Your task to perform on an android device: toggle pop-ups in chrome Image 0: 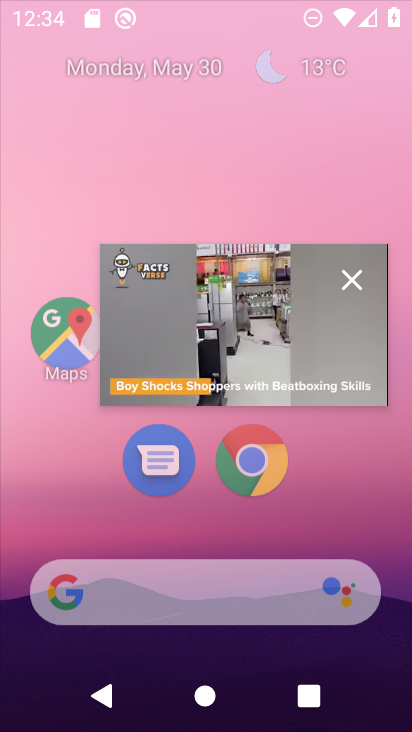
Step 0: click (290, 397)
Your task to perform on an android device: toggle pop-ups in chrome Image 1: 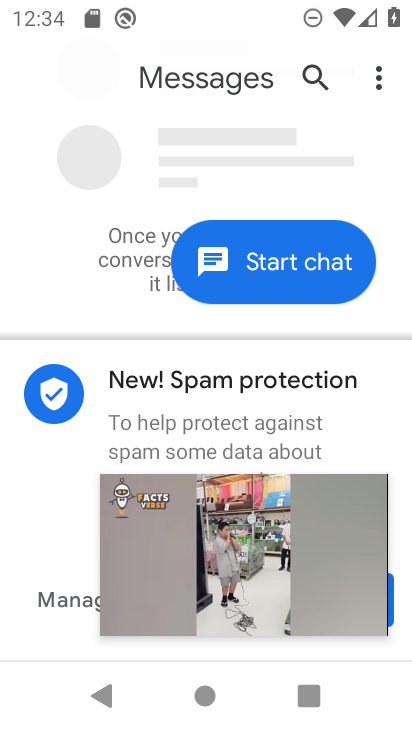
Step 1: press back button
Your task to perform on an android device: toggle pop-ups in chrome Image 2: 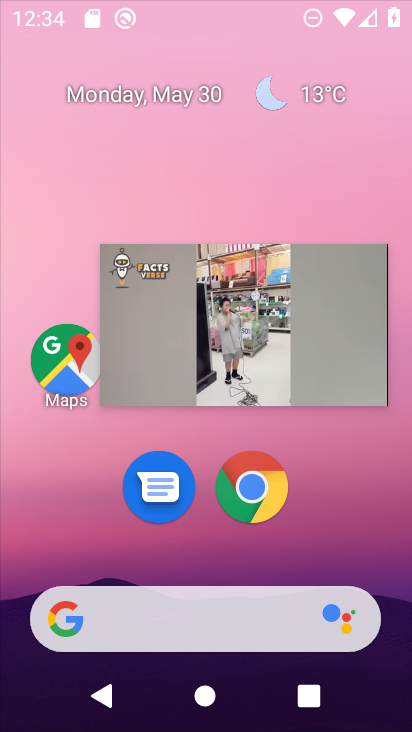
Step 2: press home button
Your task to perform on an android device: toggle pop-ups in chrome Image 3: 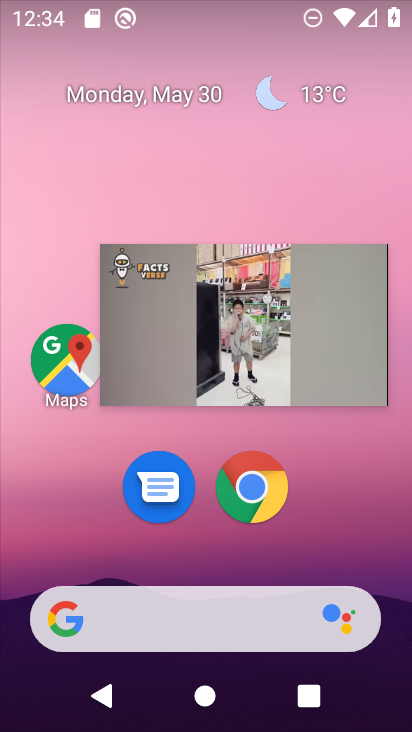
Step 3: click (342, 254)
Your task to perform on an android device: toggle pop-ups in chrome Image 4: 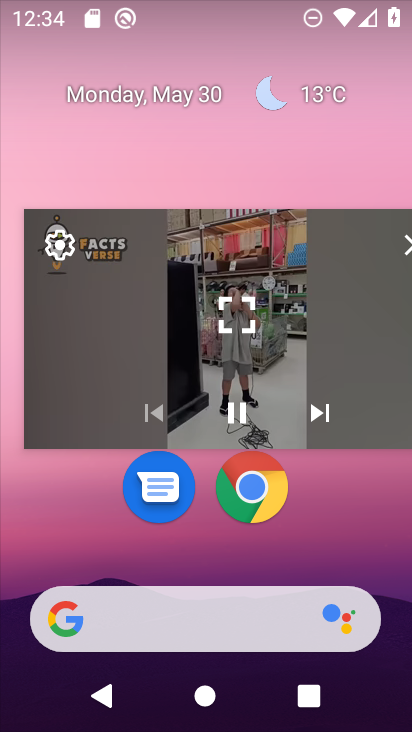
Step 4: click (403, 245)
Your task to perform on an android device: toggle pop-ups in chrome Image 5: 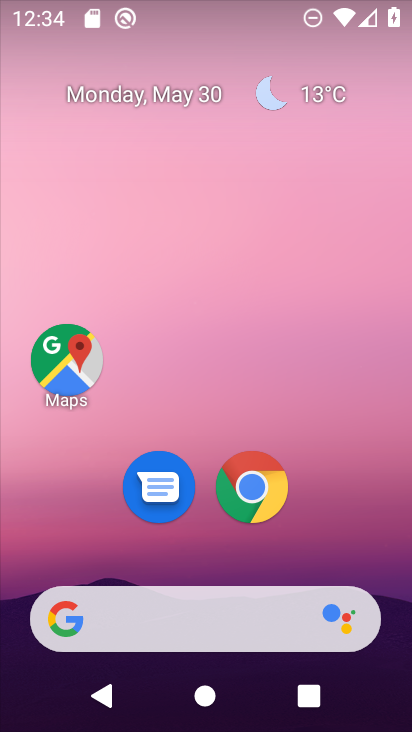
Step 5: click (242, 466)
Your task to perform on an android device: toggle pop-ups in chrome Image 6: 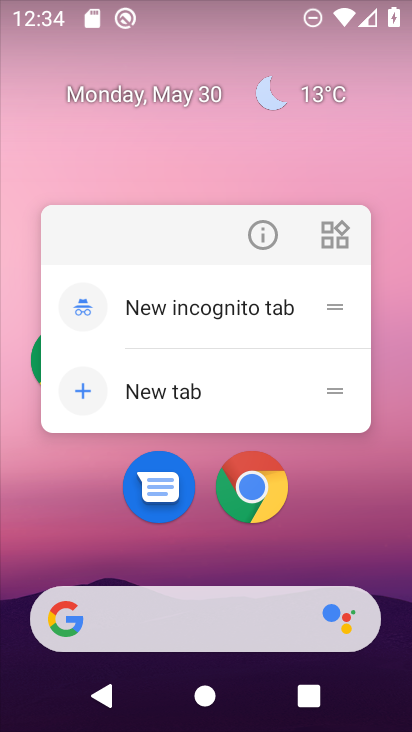
Step 6: click (249, 489)
Your task to perform on an android device: toggle pop-ups in chrome Image 7: 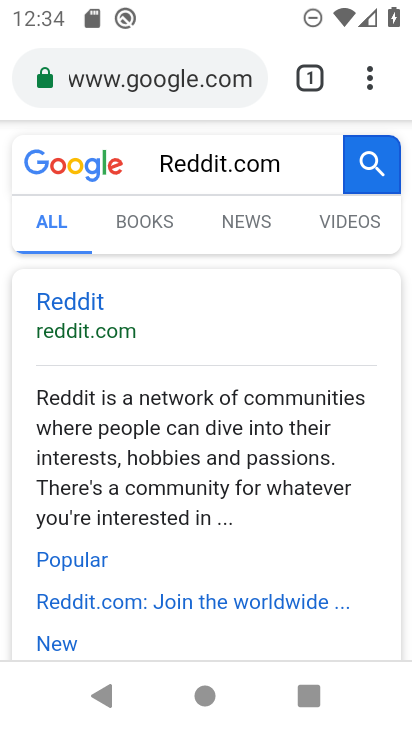
Step 7: click (369, 81)
Your task to perform on an android device: toggle pop-ups in chrome Image 8: 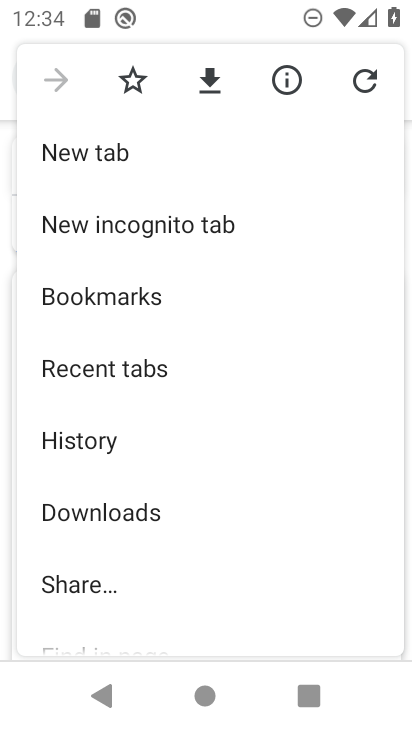
Step 8: drag from (231, 560) to (265, 195)
Your task to perform on an android device: toggle pop-ups in chrome Image 9: 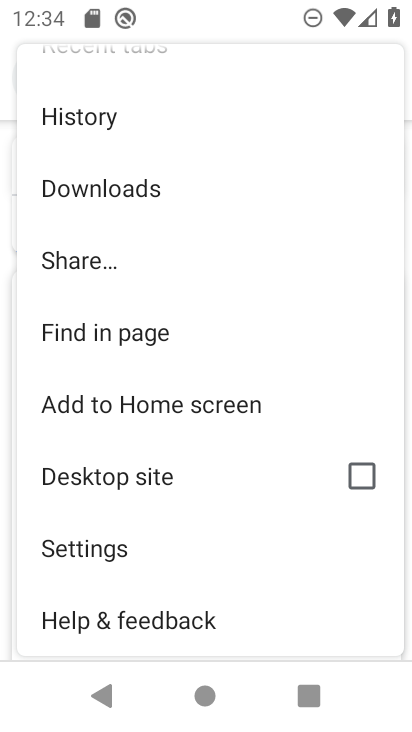
Step 9: drag from (224, 603) to (238, 231)
Your task to perform on an android device: toggle pop-ups in chrome Image 10: 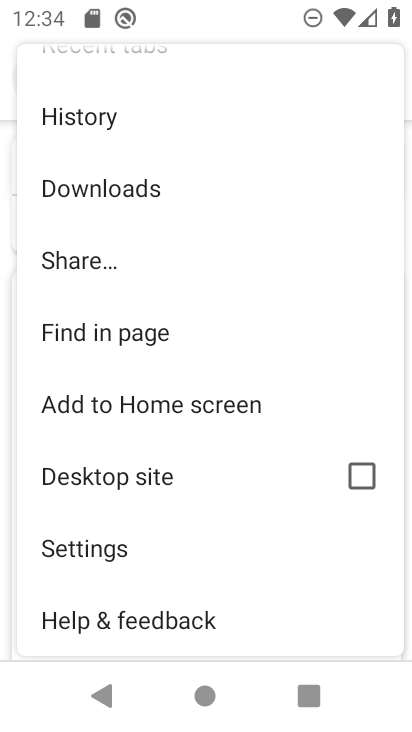
Step 10: click (103, 542)
Your task to perform on an android device: toggle pop-ups in chrome Image 11: 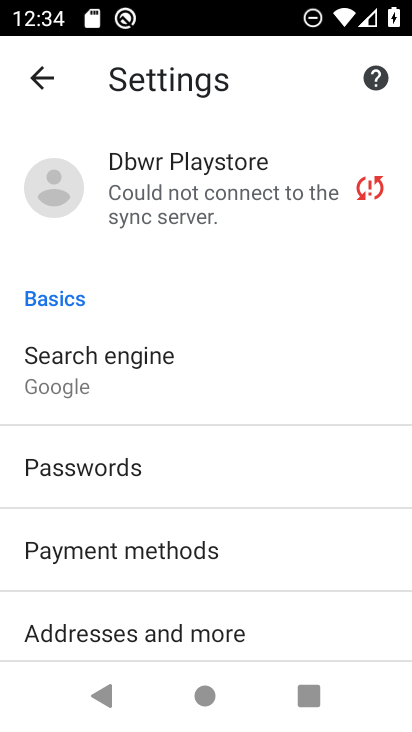
Step 11: drag from (260, 638) to (250, 177)
Your task to perform on an android device: toggle pop-ups in chrome Image 12: 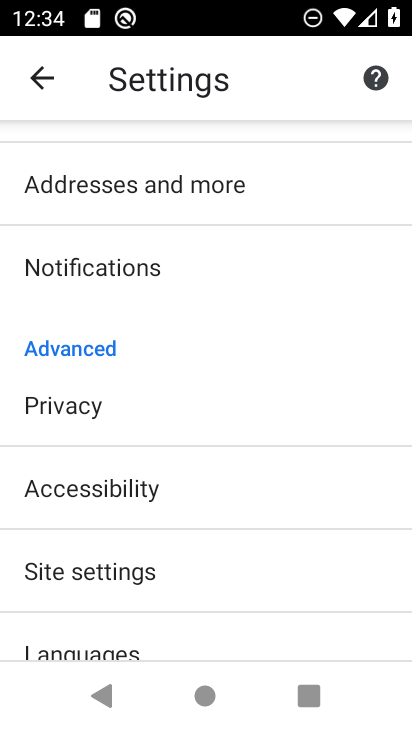
Step 12: click (95, 573)
Your task to perform on an android device: toggle pop-ups in chrome Image 13: 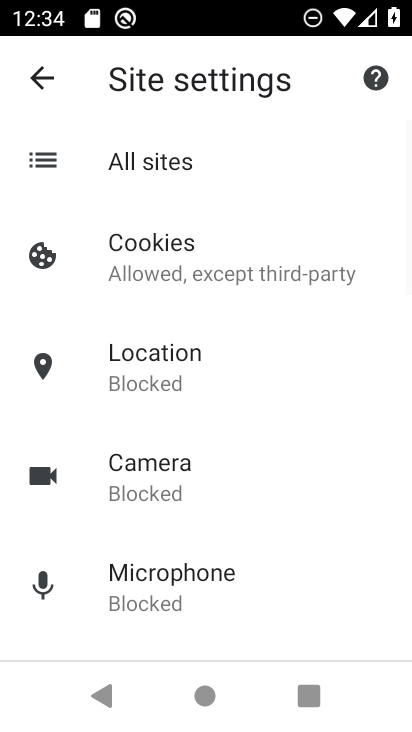
Step 13: drag from (246, 590) to (244, 289)
Your task to perform on an android device: toggle pop-ups in chrome Image 14: 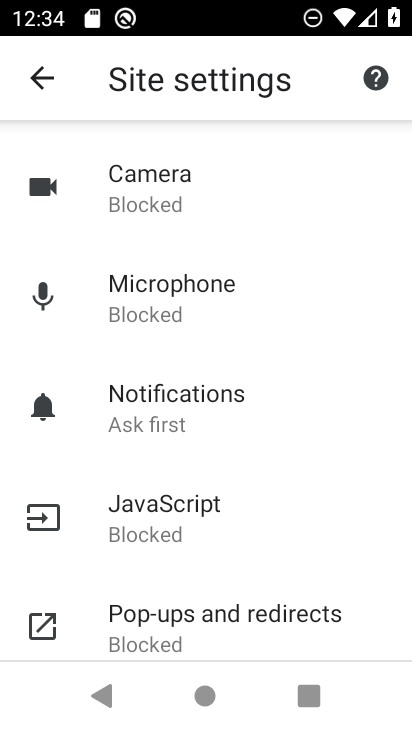
Step 14: click (137, 613)
Your task to perform on an android device: toggle pop-ups in chrome Image 15: 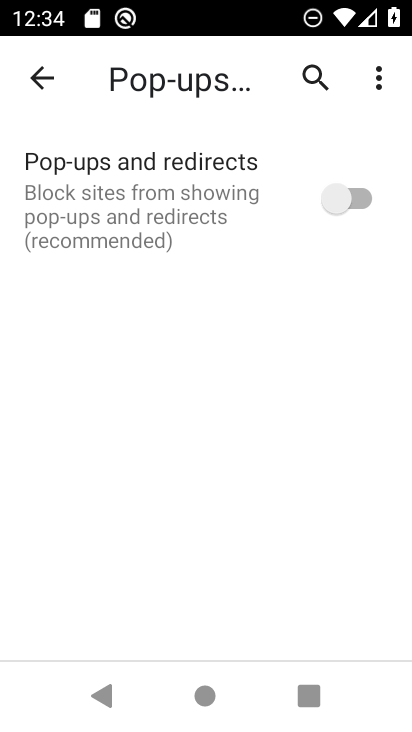
Step 15: click (358, 206)
Your task to perform on an android device: toggle pop-ups in chrome Image 16: 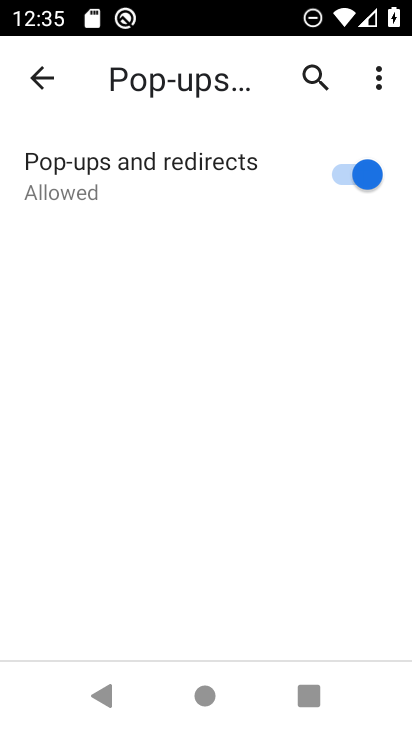
Step 16: task complete